Your task to perform on an android device: Open Chrome and go to the settings page Image 0: 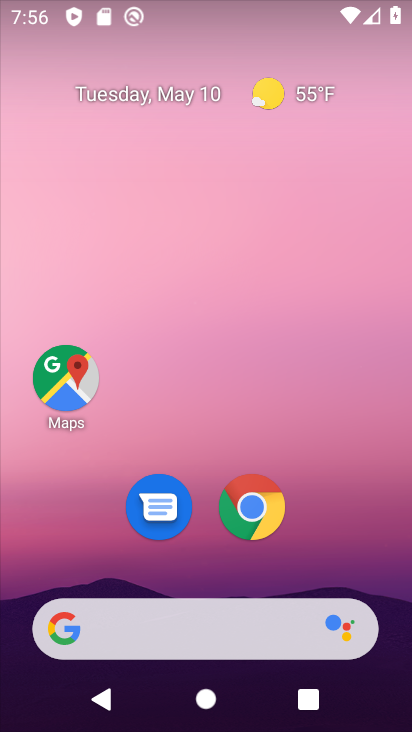
Step 0: click (269, 498)
Your task to perform on an android device: Open Chrome and go to the settings page Image 1: 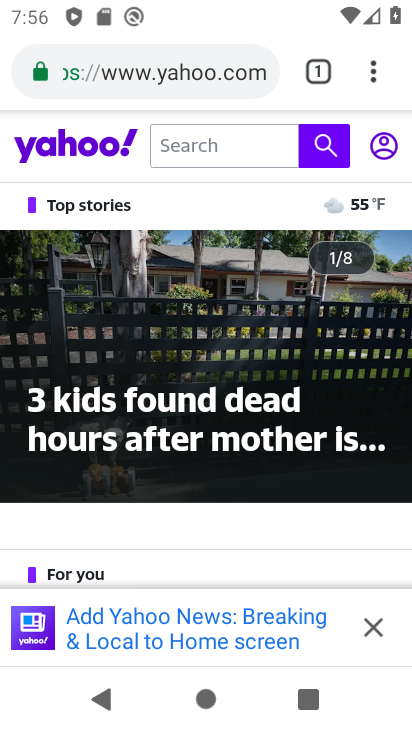
Step 1: task complete